Your task to perform on an android device: Open display settings Image 0: 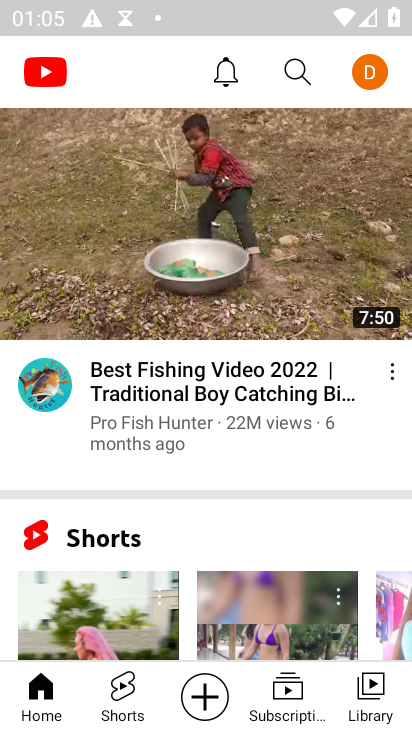
Step 0: press home button
Your task to perform on an android device: Open display settings Image 1: 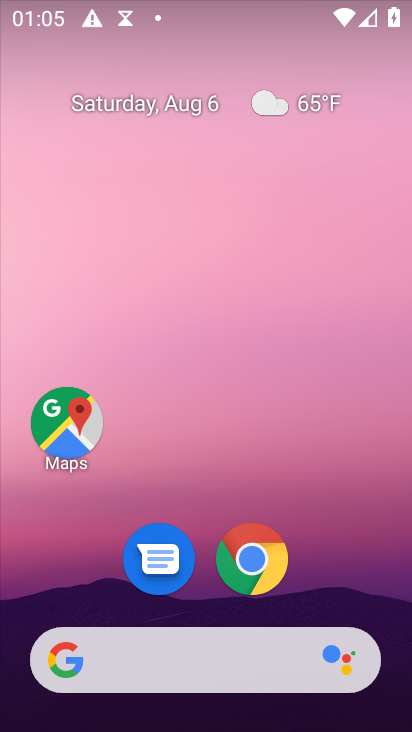
Step 1: drag from (378, 599) to (291, 170)
Your task to perform on an android device: Open display settings Image 2: 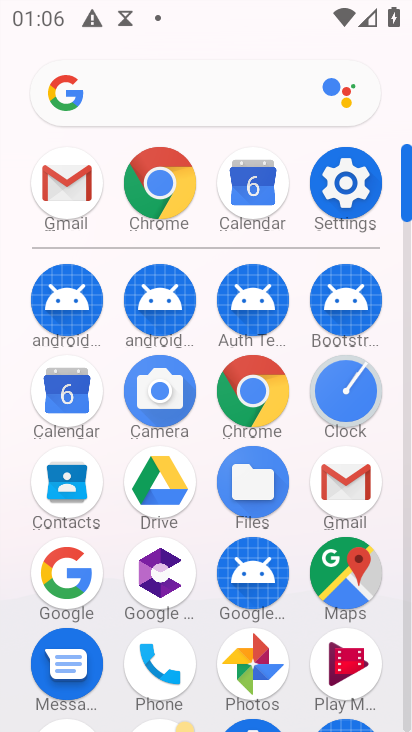
Step 2: click (344, 186)
Your task to perform on an android device: Open display settings Image 3: 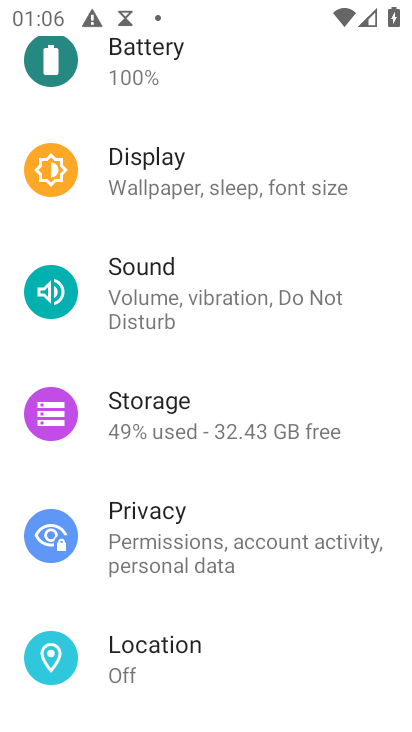
Step 3: click (254, 190)
Your task to perform on an android device: Open display settings Image 4: 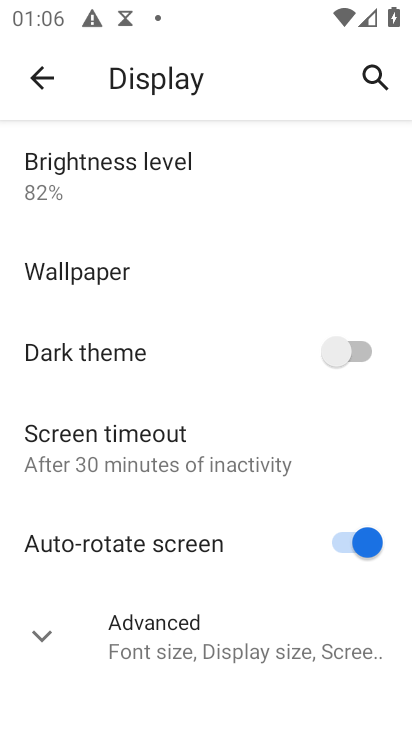
Step 4: task complete